Your task to perform on an android device: Go to sound settings Image 0: 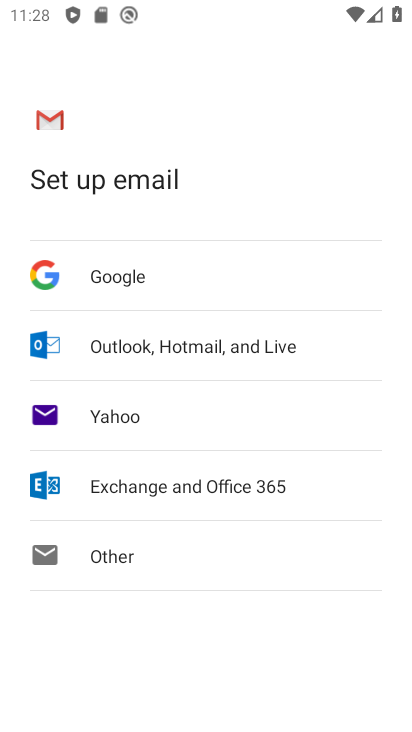
Step 0: press home button
Your task to perform on an android device: Go to sound settings Image 1: 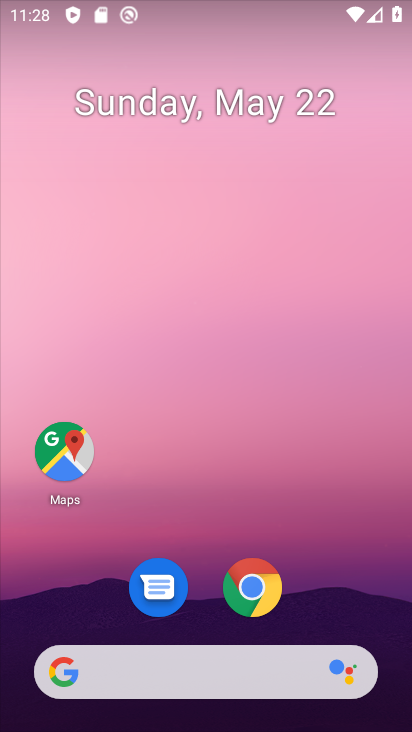
Step 1: drag from (184, 629) to (271, 54)
Your task to perform on an android device: Go to sound settings Image 2: 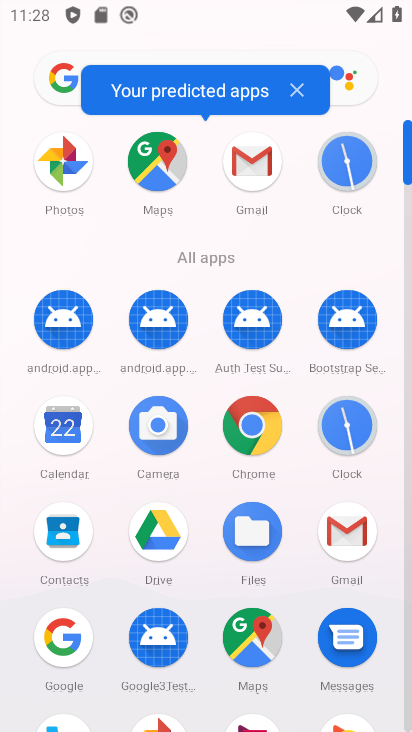
Step 2: drag from (201, 589) to (139, 202)
Your task to perform on an android device: Go to sound settings Image 3: 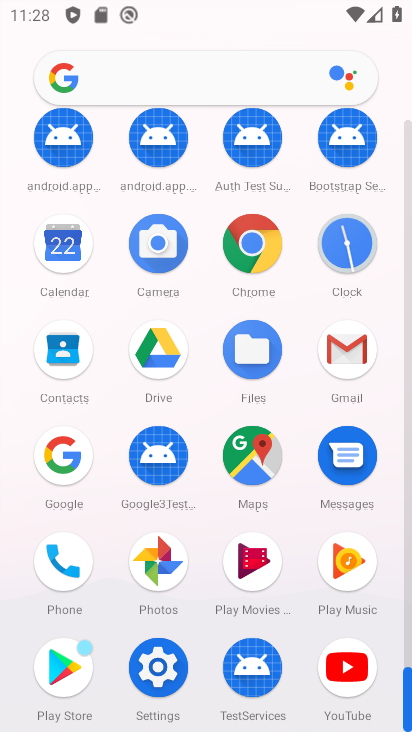
Step 3: click (170, 680)
Your task to perform on an android device: Go to sound settings Image 4: 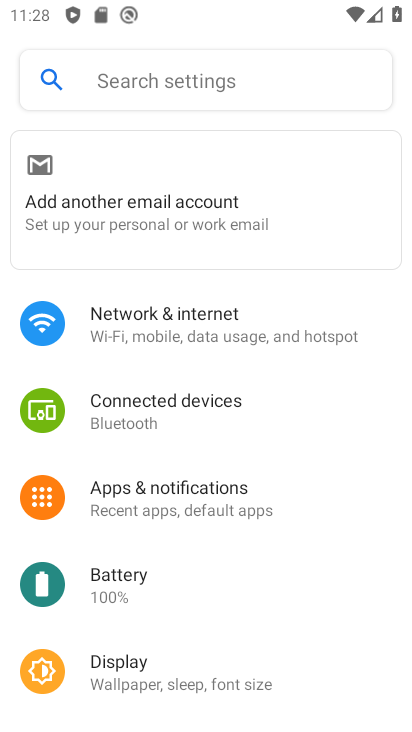
Step 4: drag from (120, 619) to (107, 248)
Your task to perform on an android device: Go to sound settings Image 5: 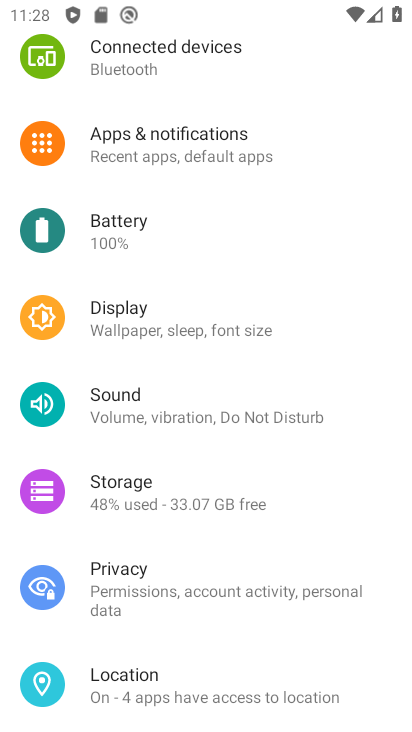
Step 5: click (105, 415)
Your task to perform on an android device: Go to sound settings Image 6: 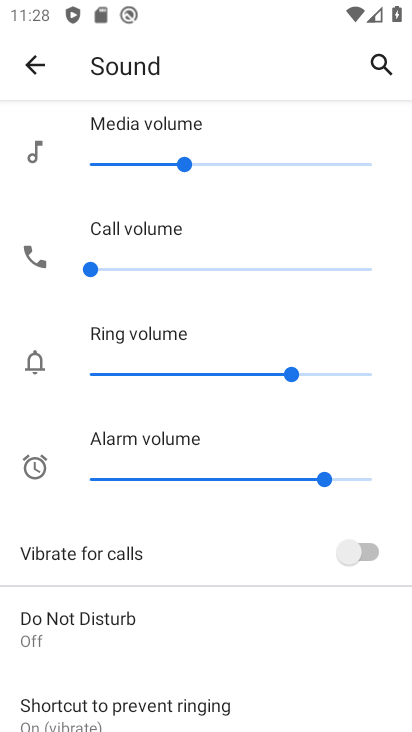
Step 6: task complete